Your task to perform on an android device: turn on javascript in the chrome app Image 0: 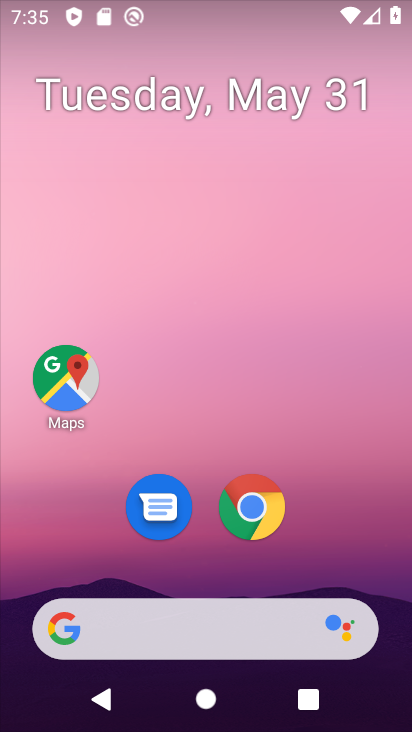
Step 0: drag from (349, 535) to (391, 219)
Your task to perform on an android device: turn on javascript in the chrome app Image 1: 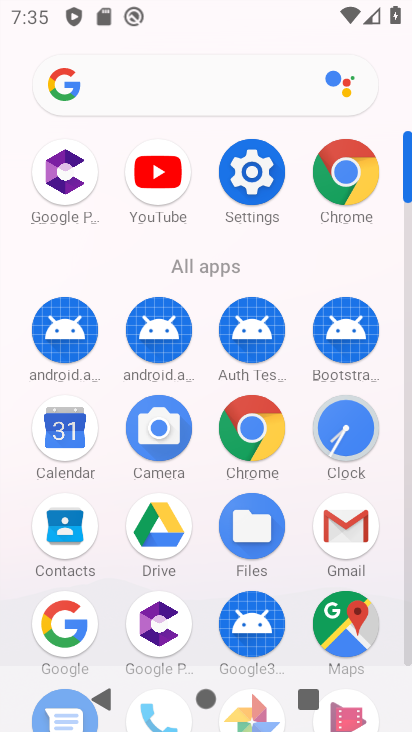
Step 1: click (254, 434)
Your task to perform on an android device: turn on javascript in the chrome app Image 2: 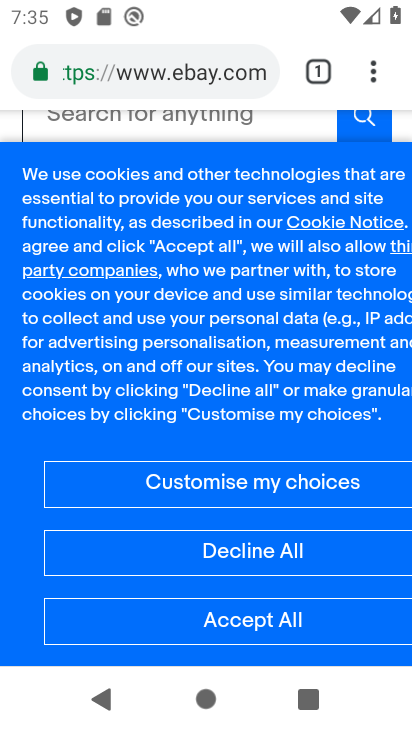
Step 2: drag from (377, 69) to (212, 481)
Your task to perform on an android device: turn on javascript in the chrome app Image 3: 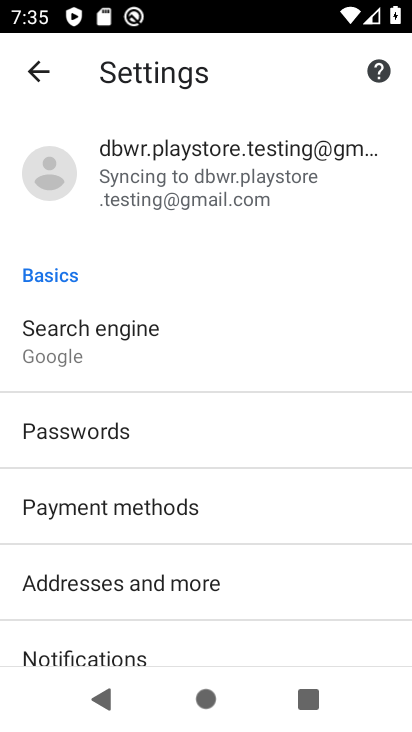
Step 3: drag from (161, 546) to (220, 181)
Your task to perform on an android device: turn on javascript in the chrome app Image 4: 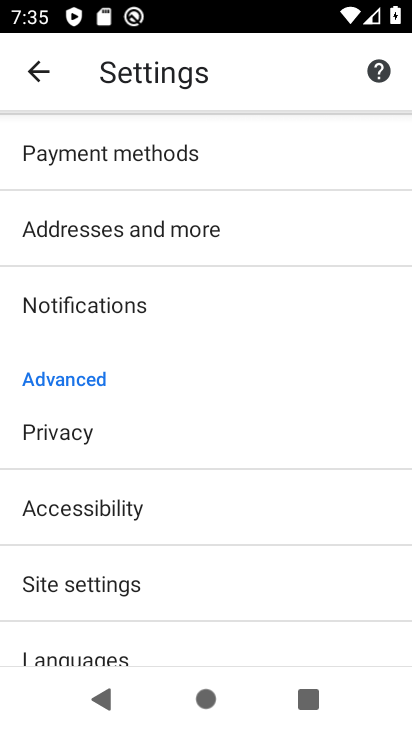
Step 4: drag from (132, 585) to (277, 276)
Your task to perform on an android device: turn on javascript in the chrome app Image 5: 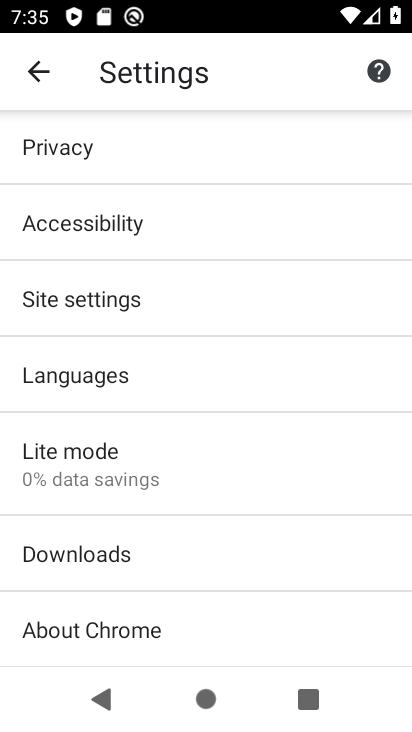
Step 5: click (54, 294)
Your task to perform on an android device: turn on javascript in the chrome app Image 6: 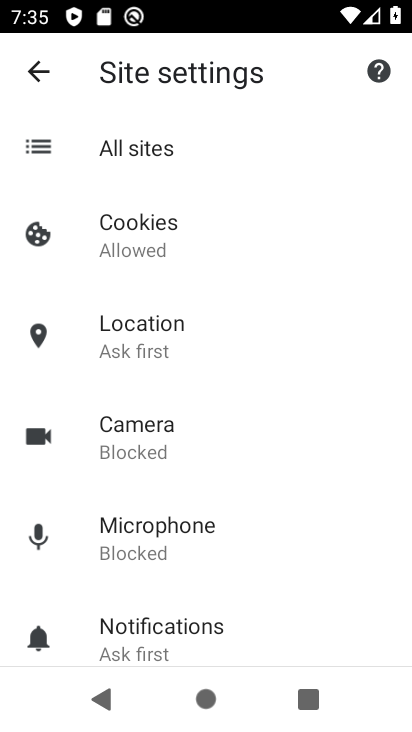
Step 6: drag from (175, 579) to (265, 161)
Your task to perform on an android device: turn on javascript in the chrome app Image 7: 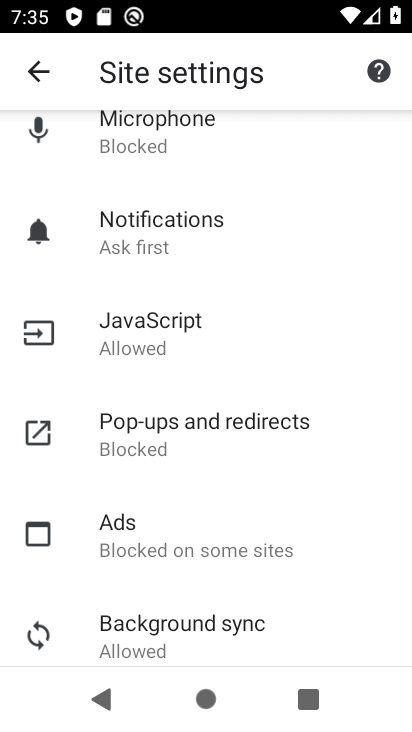
Step 7: click (149, 339)
Your task to perform on an android device: turn on javascript in the chrome app Image 8: 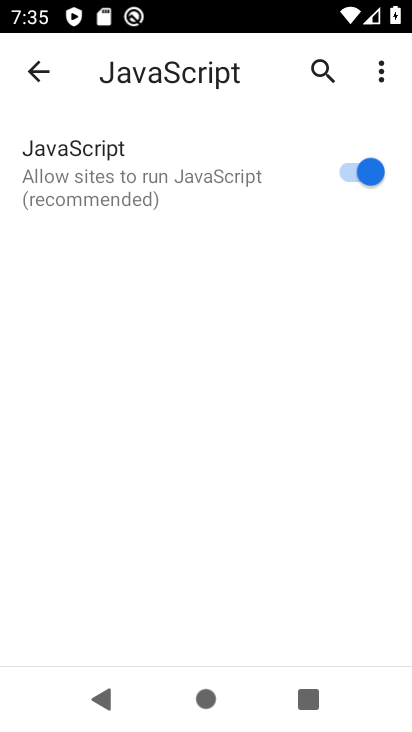
Step 8: task complete